Your task to perform on an android device: star an email in the gmail app Image 0: 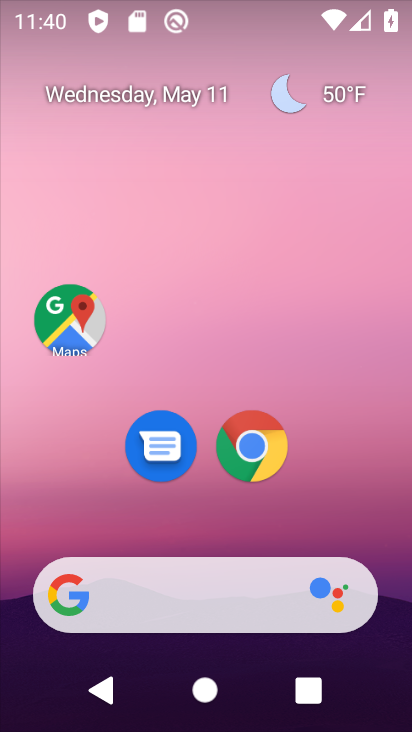
Step 0: drag from (330, 475) to (292, 127)
Your task to perform on an android device: star an email in the gmail app Image 1: 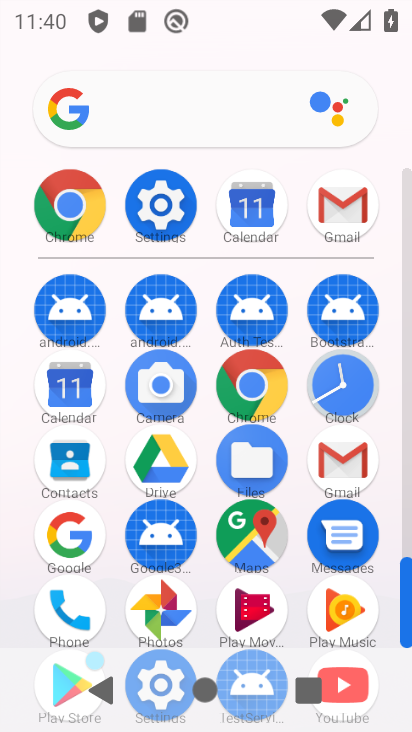
Step 1: click (360, 224)
Your task to perform on an android device: star an email in the gmail app Image 2: 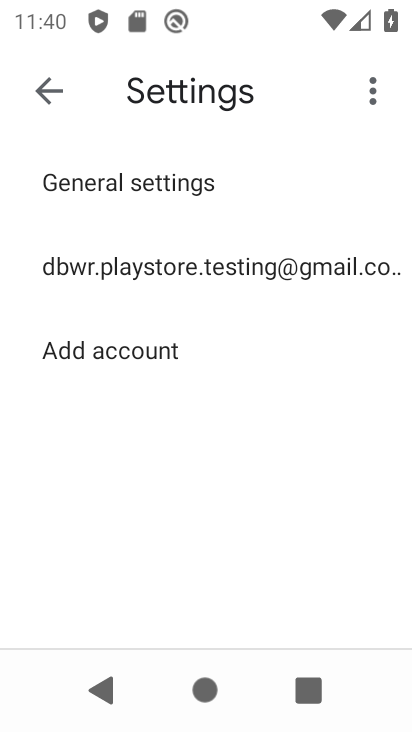
Step 2: press back button
Your task to perform on an android device: star an email in the gmail app Image 3: 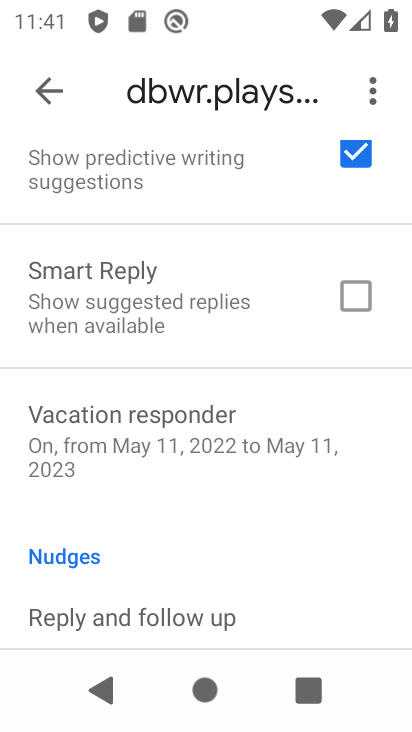
Step 3: click (48, 74)
Your task to perform on an android device: star an email in the gmail app Image 4: 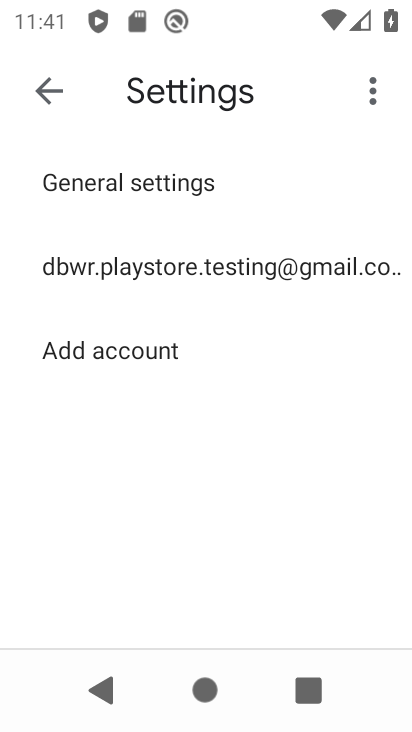
Step 4: click (42, 85)
Your task to perform on an android device: star an email in the gmail app Image 5: 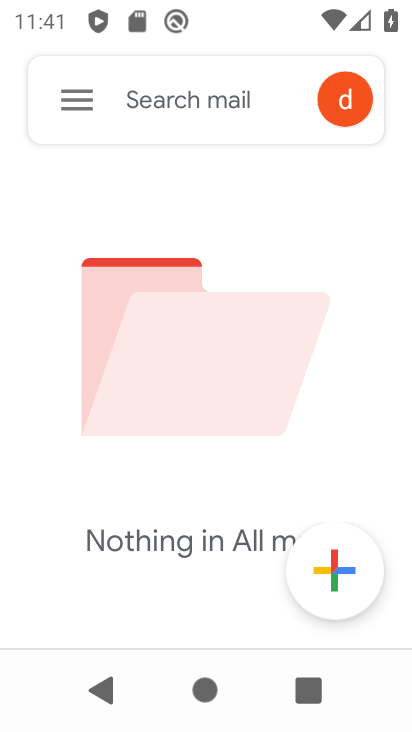
Step 5: click (75, 95)
Your task to perform on an android device: star an email in the gmail app Image 6: 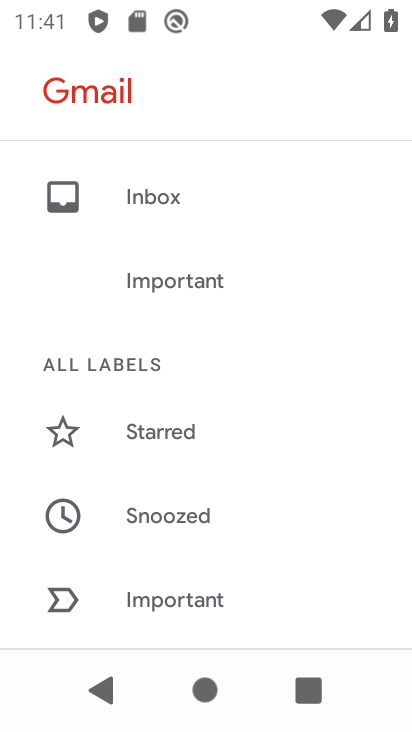
Step 6: click (115, 185)
Your task to perform on an android device: star an email in the gmail app Image 7: 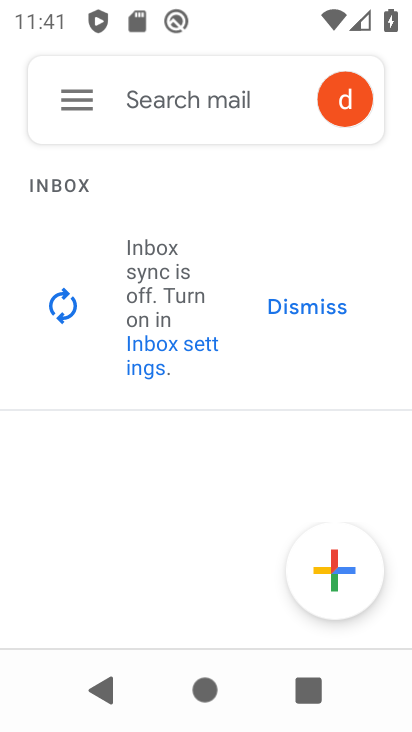
Step 7: click (84, 91)
Your task to perform on an android device: star an email in the gmail app Image 8: 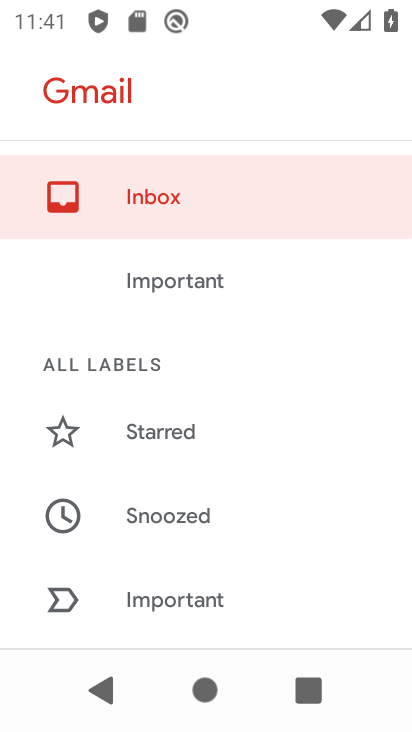
Step 8: task complete